Your task to perform on an android device: read, delete, or share a saved page in the chrome app Image 0: 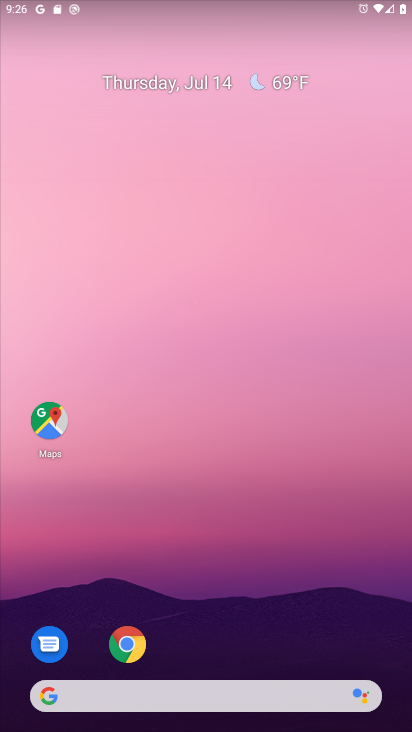
Step 0: click (116, 641)
Your task to perform on an android device: read, delete, or share a saved page in the chrome app Image 1: 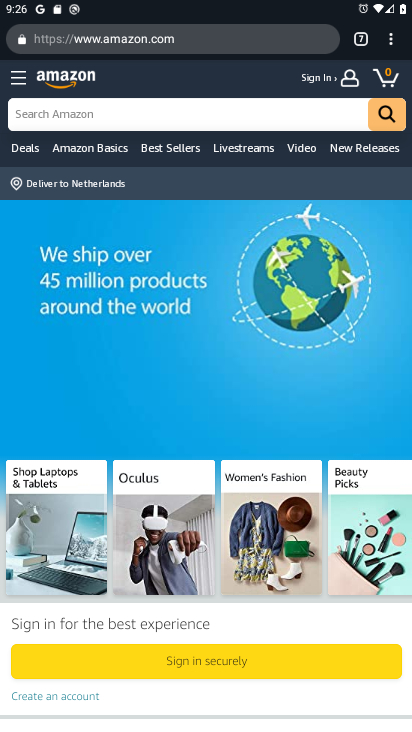
Step 1: click (398, 52)
Your task to perform on an android device: read, delete, or share a saved page in the chrome app Image 2: 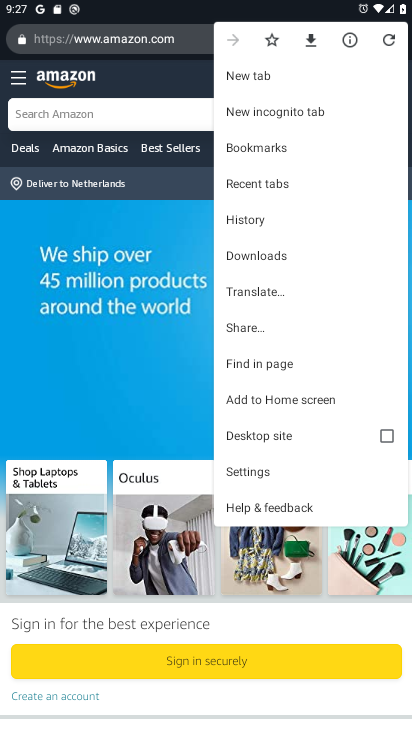
Step 2: click (294, 265)
Your task to perform on an android device: read, delete, or share a saved page in the chrome app Image 3: 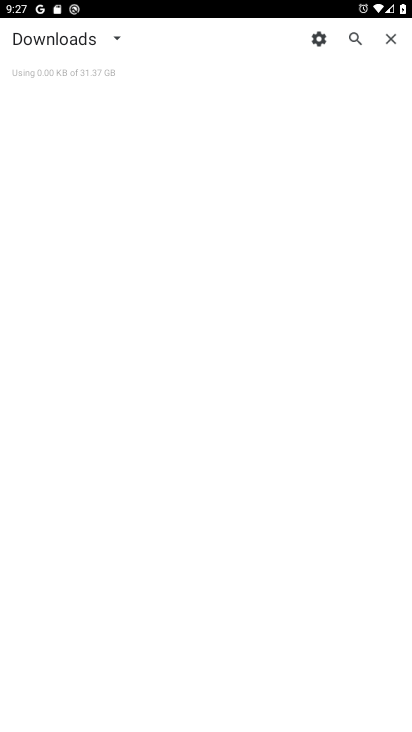
Step 3: task complete